Your task to perform on an android device: What's on my calendar tomorrow? Image 0: 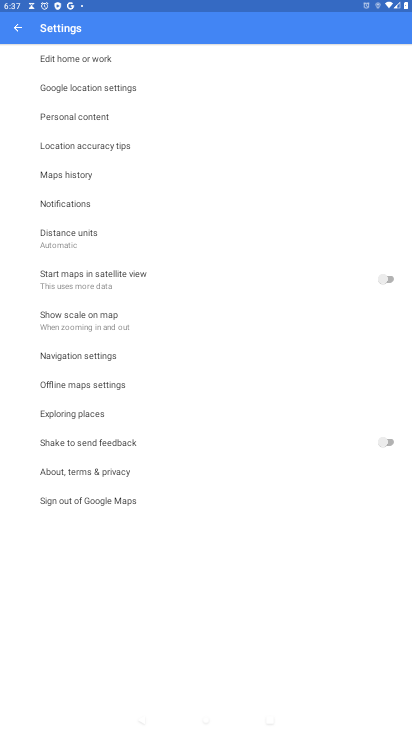
Step 0: press home button
Your task to perform on an android device: What's on my calendar tomorrow? Image 1: 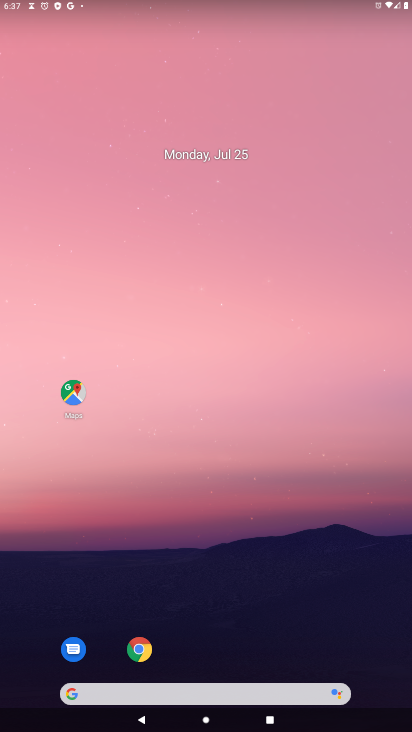
Step 1: drag from (315, 665) to (367, 70)
Your task to perform on an android device: What's on my calendar tomorrow? Image 2: 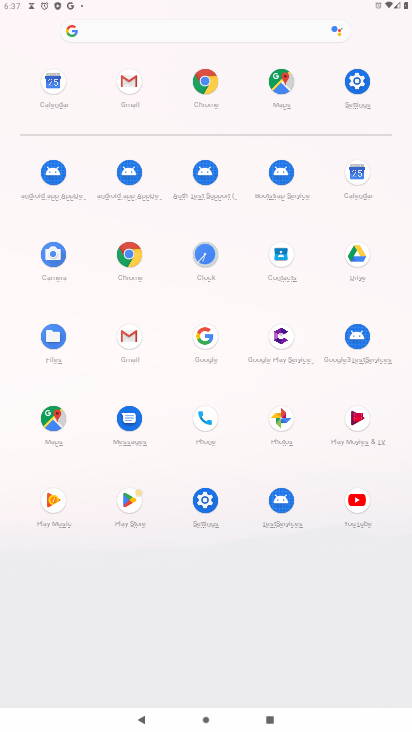
Step 2: click (358, 185)
Your task to perform on an android device: What's on my calendar tomorrow? Image 3: 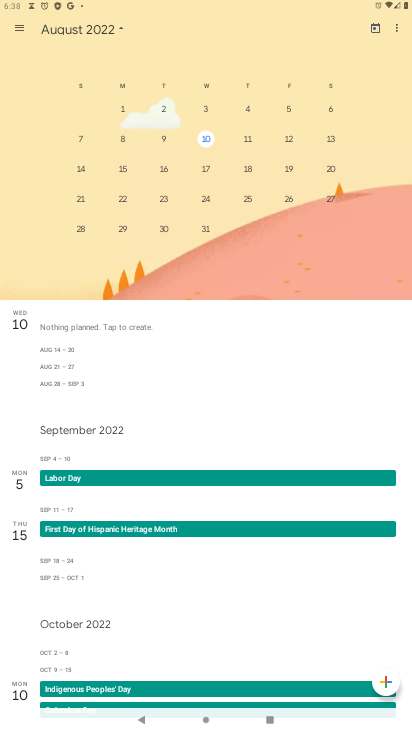
Step 3: drag from (79, 201) to (403, 225)
Your task to perform on an android device: What's on my calendar tomorrow? Image 4: 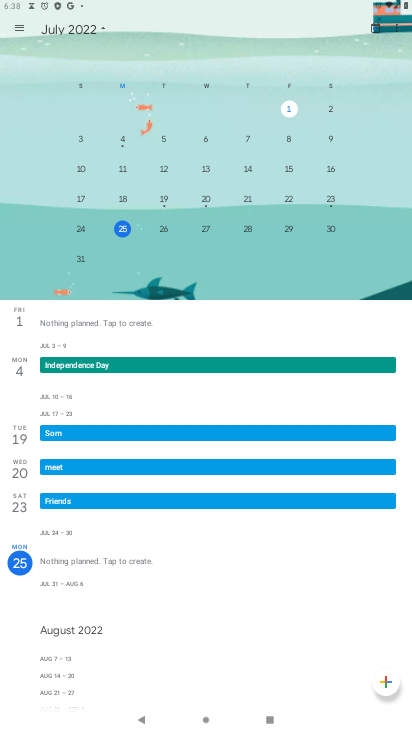
Step 4: click (166, 231)
Your task to perform on an android device: What's on my calendar tomorrow? Image 5: 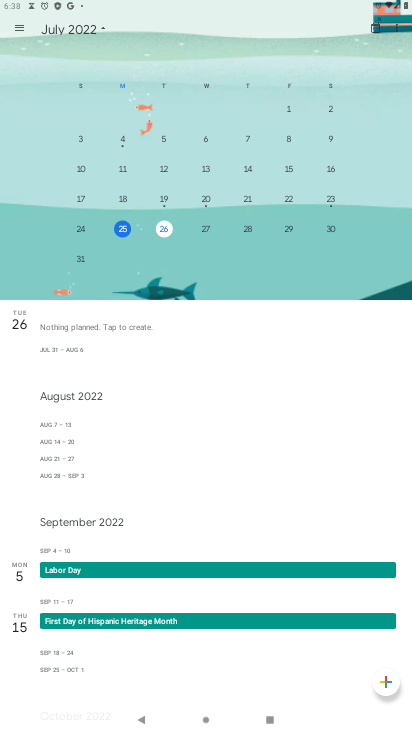
Step 5: task complete